Your task to perform on an android device: toggle data saver in the chrome app Image 0: 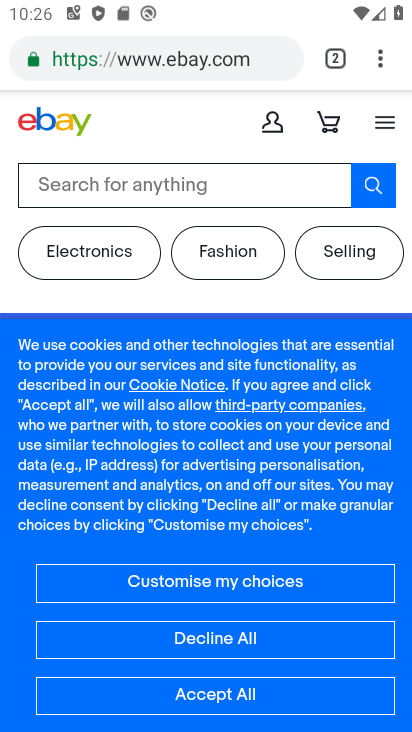
Step 0: press home button
Your task to perform on an android device: toggle data saver in the chrome app Image 1: 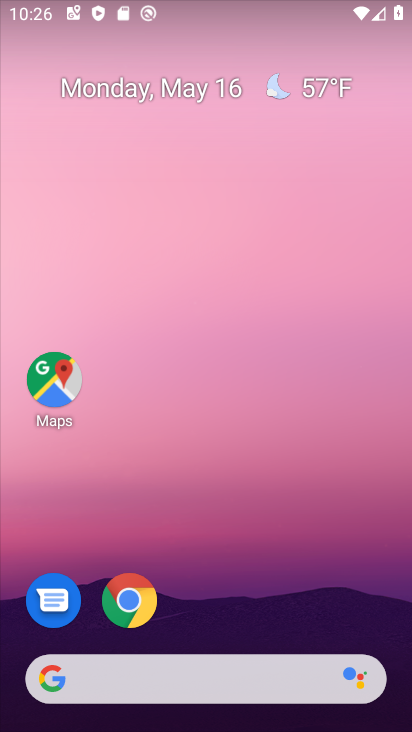
Step 1: drag from (265, 620) to (213, 182)
Your task to perform on an android device: toggle data saver in the chrome app Image 2: 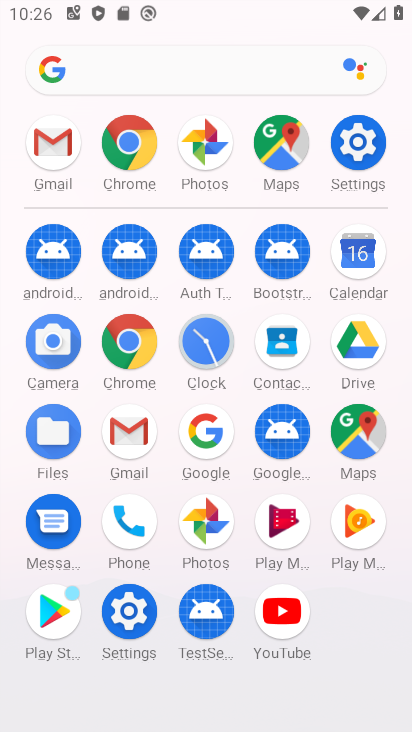
Step 2: click (121, 349)
Your task to perform on an android device: toggle data saver in the chrome app Image 3: 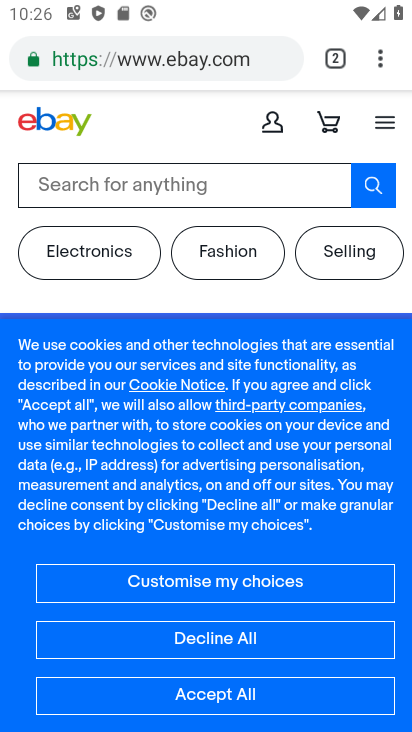
Step 3: drag from (383, 68) to (185, 623)
Your task to perform on an android device: toggle data saver in the chrome app Image 4: 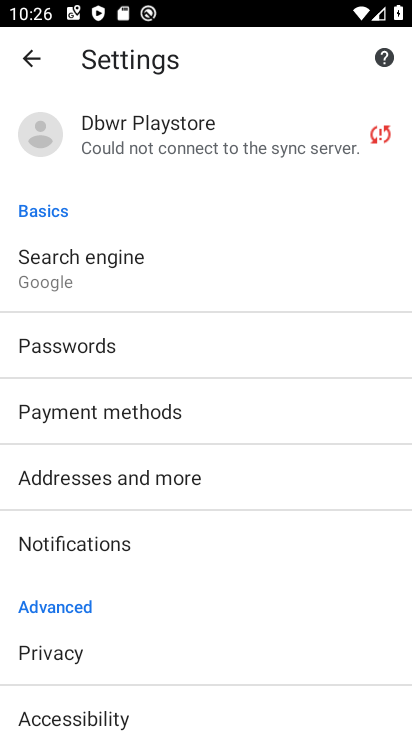
Step 4: drag from (200, 641) to (154, 303)
Your task to perform on an android device: toggle data saver in the chrome app Image 5: 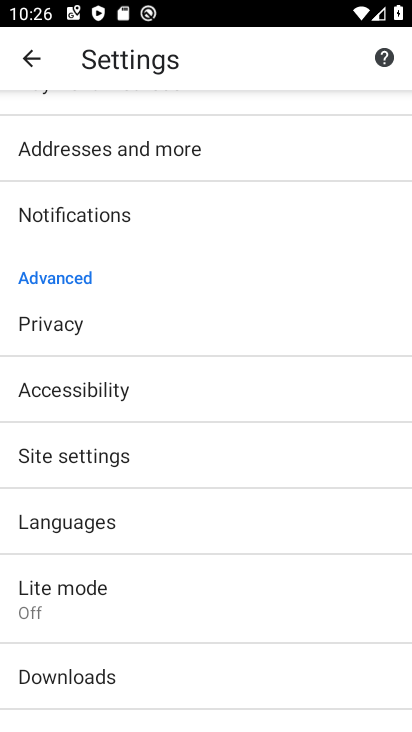
Step 5: click (51, 622)
Your task to perform on an android device: toggle data saver in the chrome app Image 6: 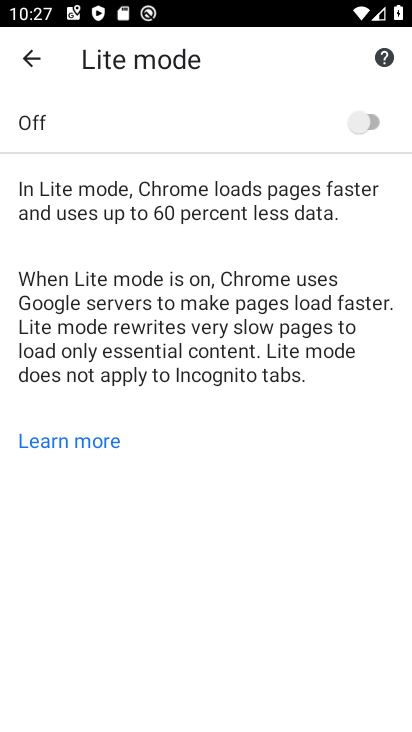
Step 6: click (379, 119)
Your task to perform on an android device: toggle data saver in the chrome app Image 7: 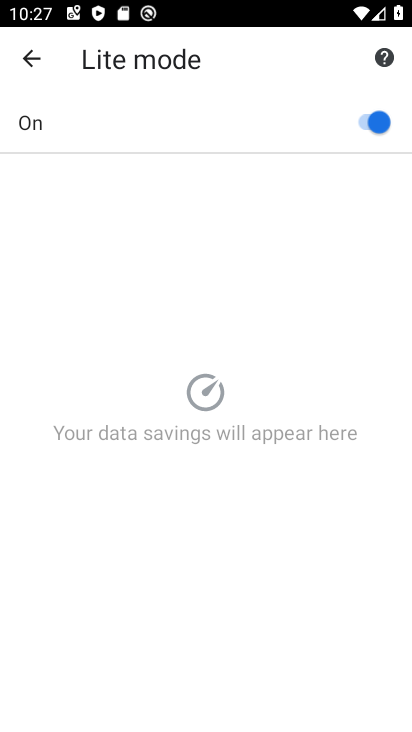
Step 7: task complete